Your task to perform on an android device: delete the emails in spam in the gmail app Image 0: 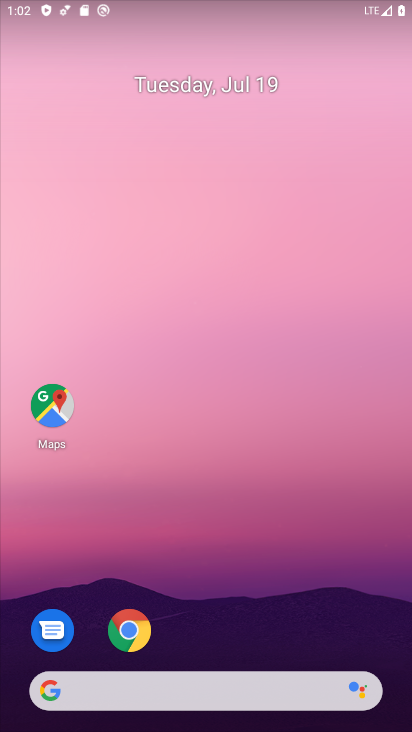
Step 0: drag from (222, 642) to (229, 220)
Your task to perform on an android device: delete the emails in spam in the gmail app Image 1: 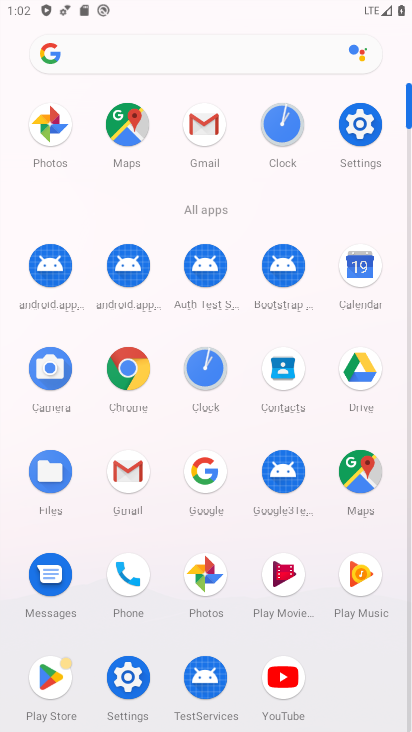
Step 1: click (136, 463)
Your task to perform on an android device: delete the emails in spam in the gmail app Image 2: 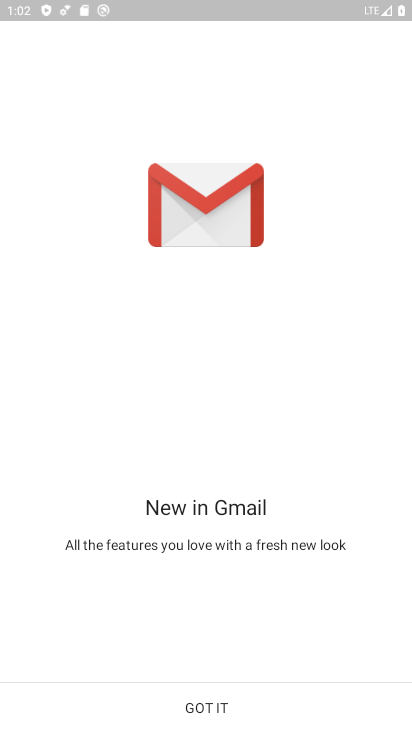
Step 2: click (217, 705)
Your task to perform on an android device: delete the emails in spam in the gmail app Image 3: 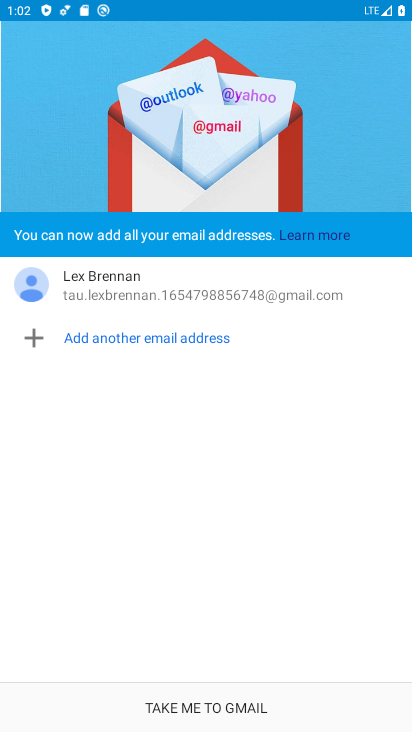
Step 3: click (217, 705)
Your task to perform on an android device: delete the emails in spam in the gmail app Image 4: 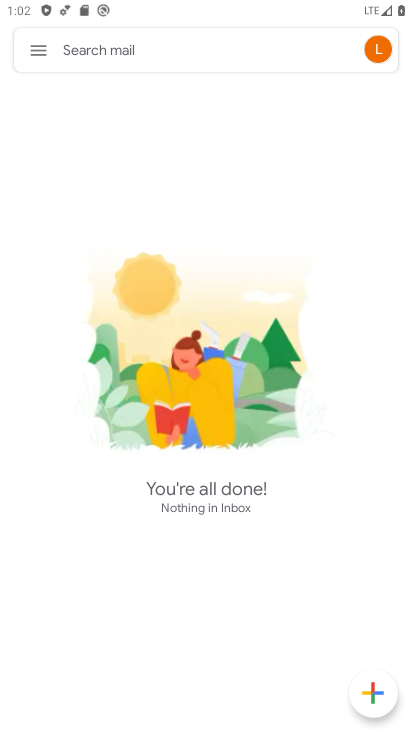
Step 4: click (44, 42)
Your task to perform on an android device: delete the emails in spam in the gmail app Image 5: 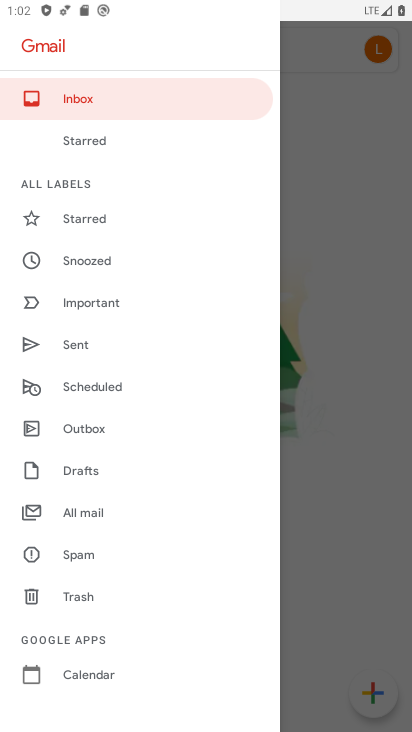
Step 5: click (91, 558)
Your task to perform on an android device: delete the emails in spam in the gmail app Image 6: 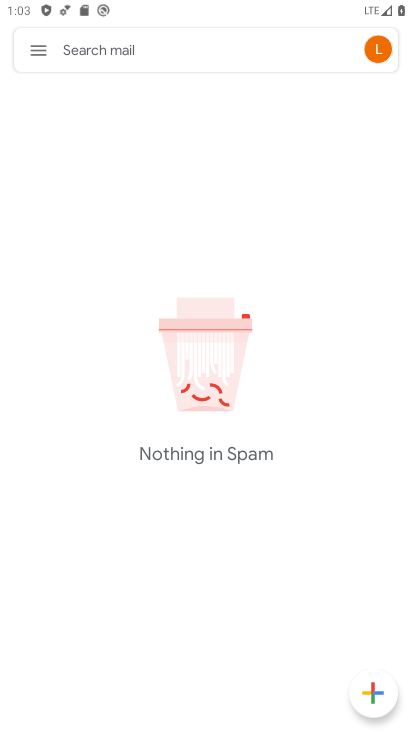
Step 6: task complete